Your task to perform on an android device: What's the latest news in space science? Image 0: 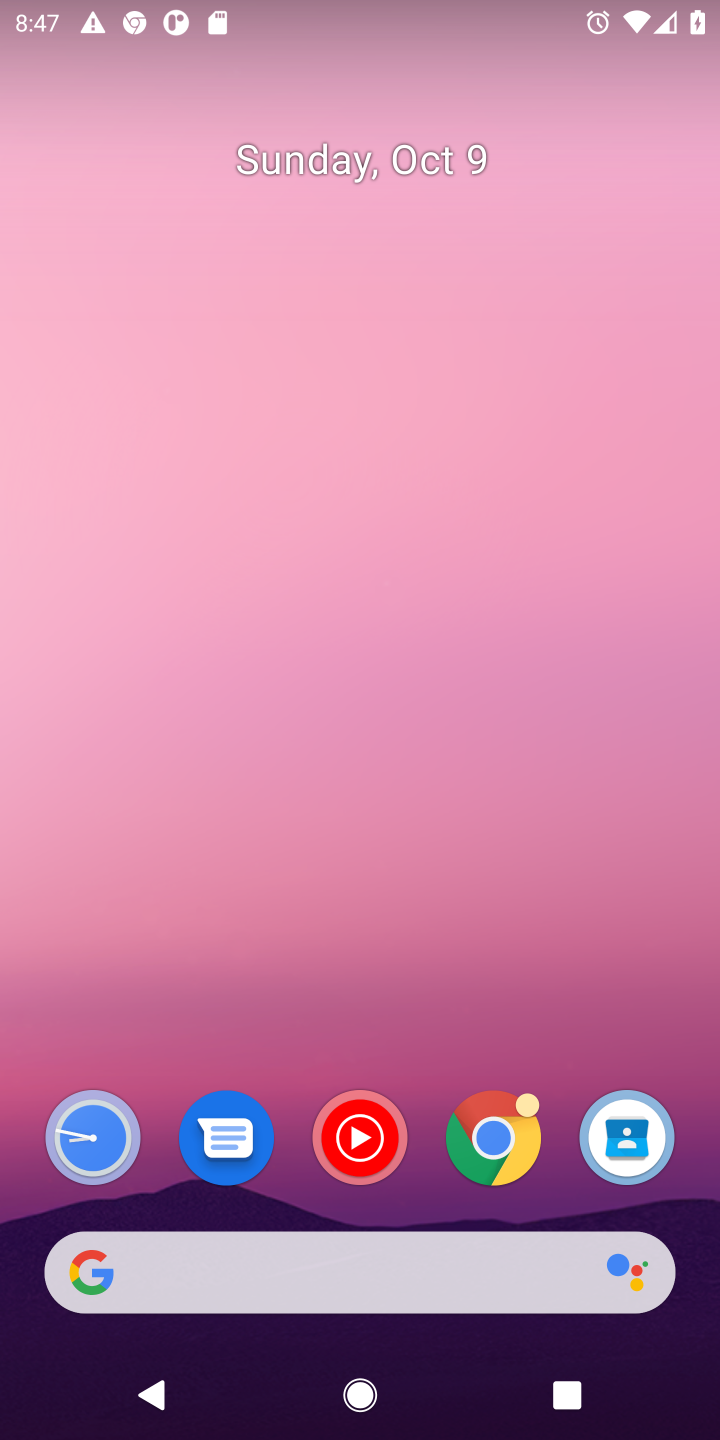
Step 0: drag from (348, 827) to (421, 558)
Your task to perform on an android device: What's the latest news in space science? Image 1: 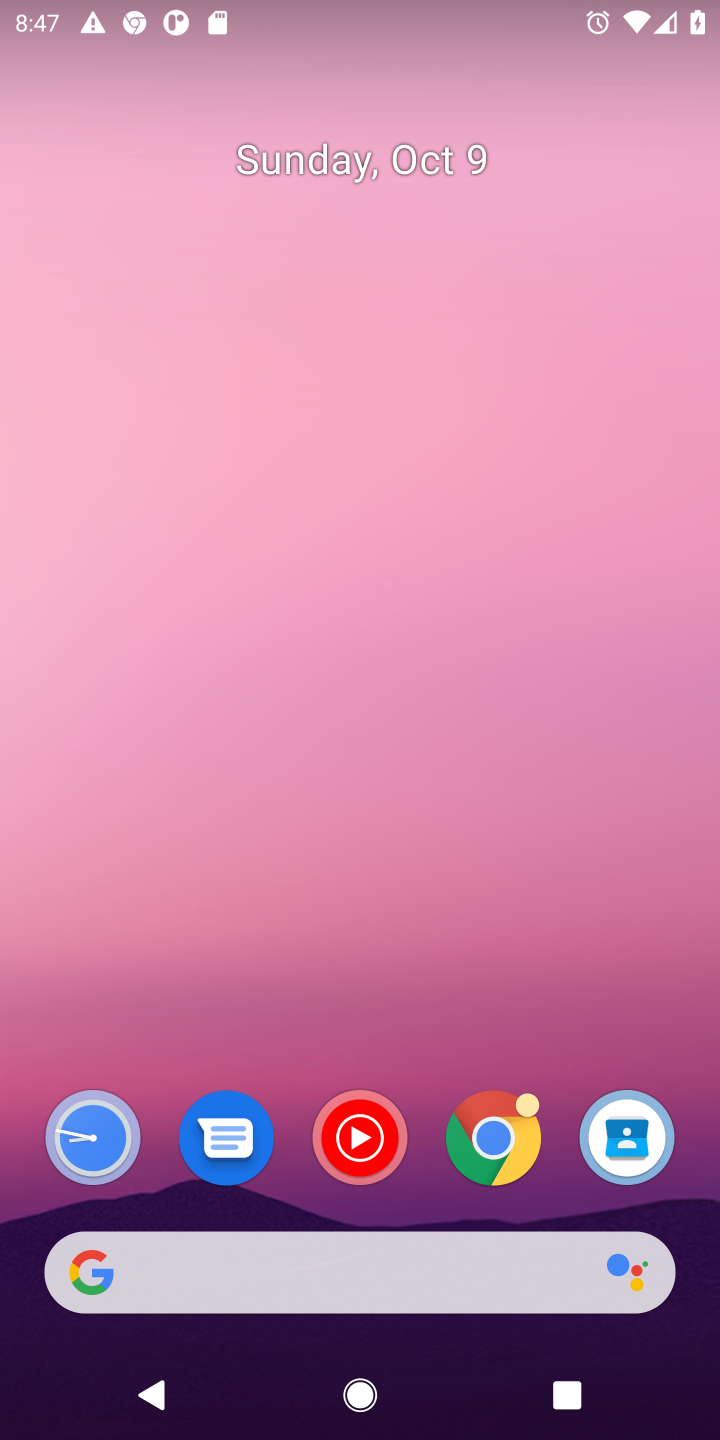
Step 1: drag from (228, 1208) to (331, 242)
Your task to perform on an android device: What's the latest news in space science? Image 2: 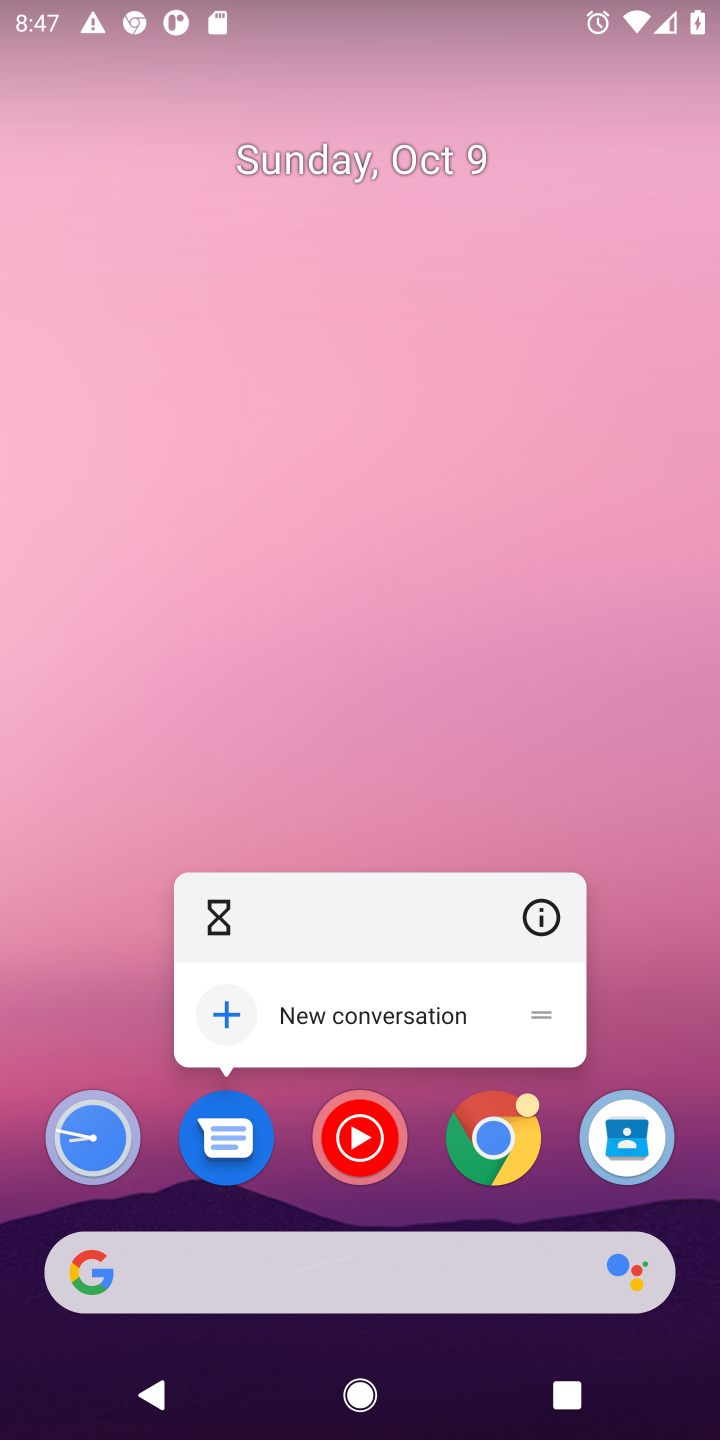
Step 2: click (444, 755)
Your task to perform on an android device: What's the latest news in space science? Image 3: 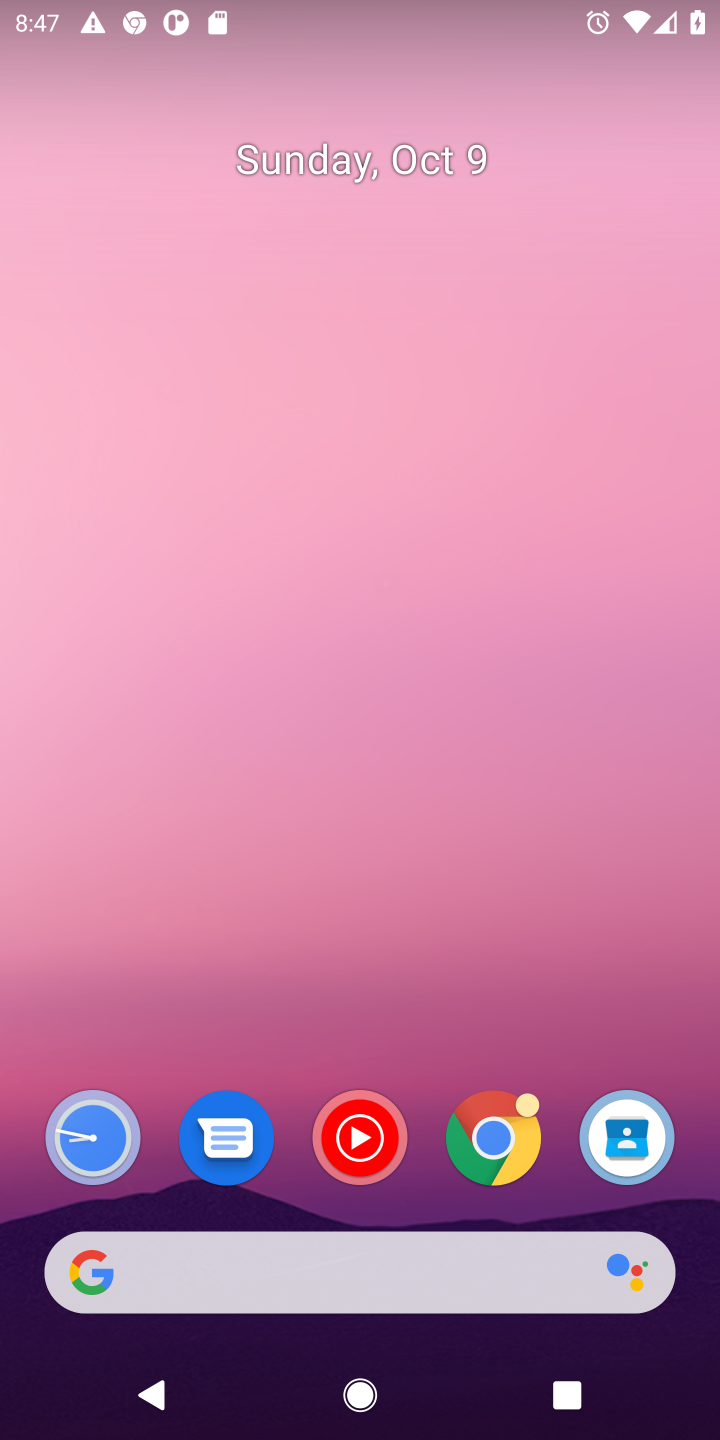
Step 3: drag from (361, 1001) to (453, 388)
Your task to perform on an android device: What's the latest news in space science? Image 4: 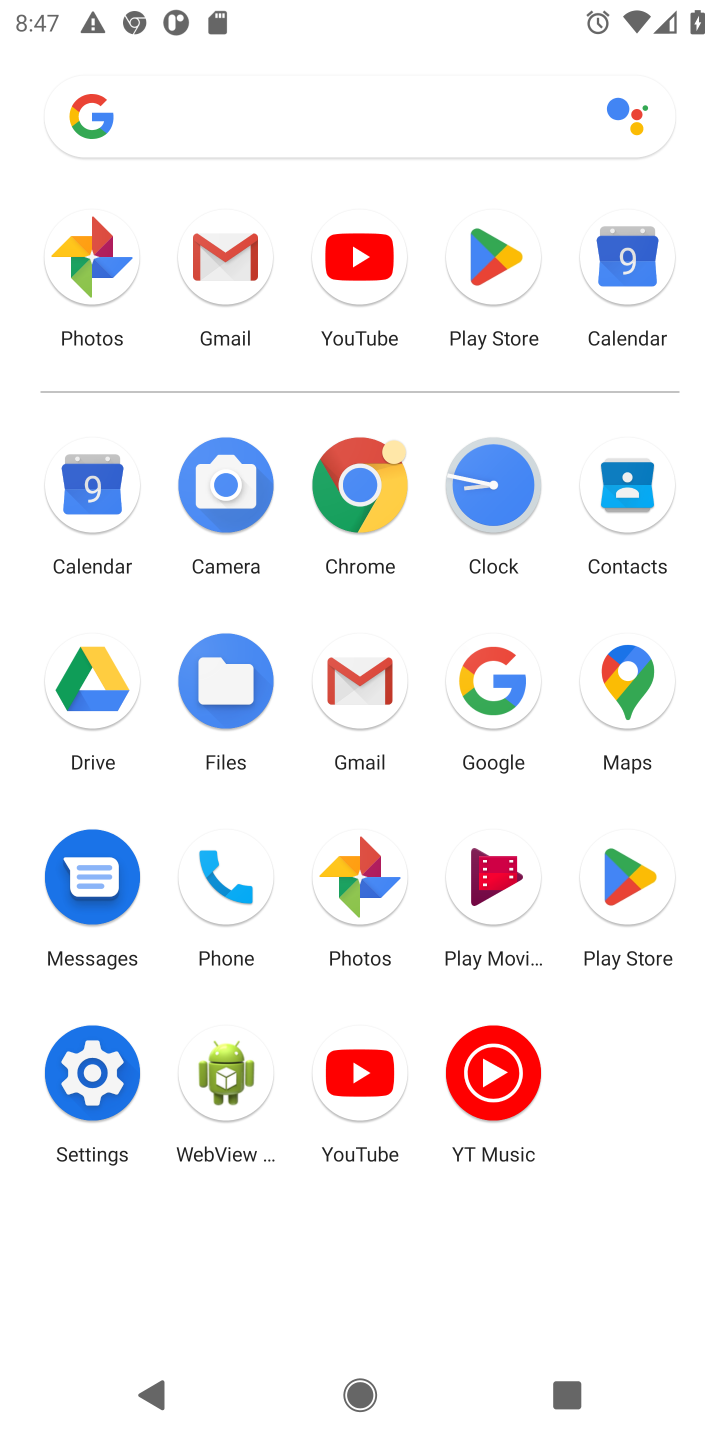
Step 4: click (504, 666)
Your task to perform on an android device: What's the latest news in space science? Image 5: 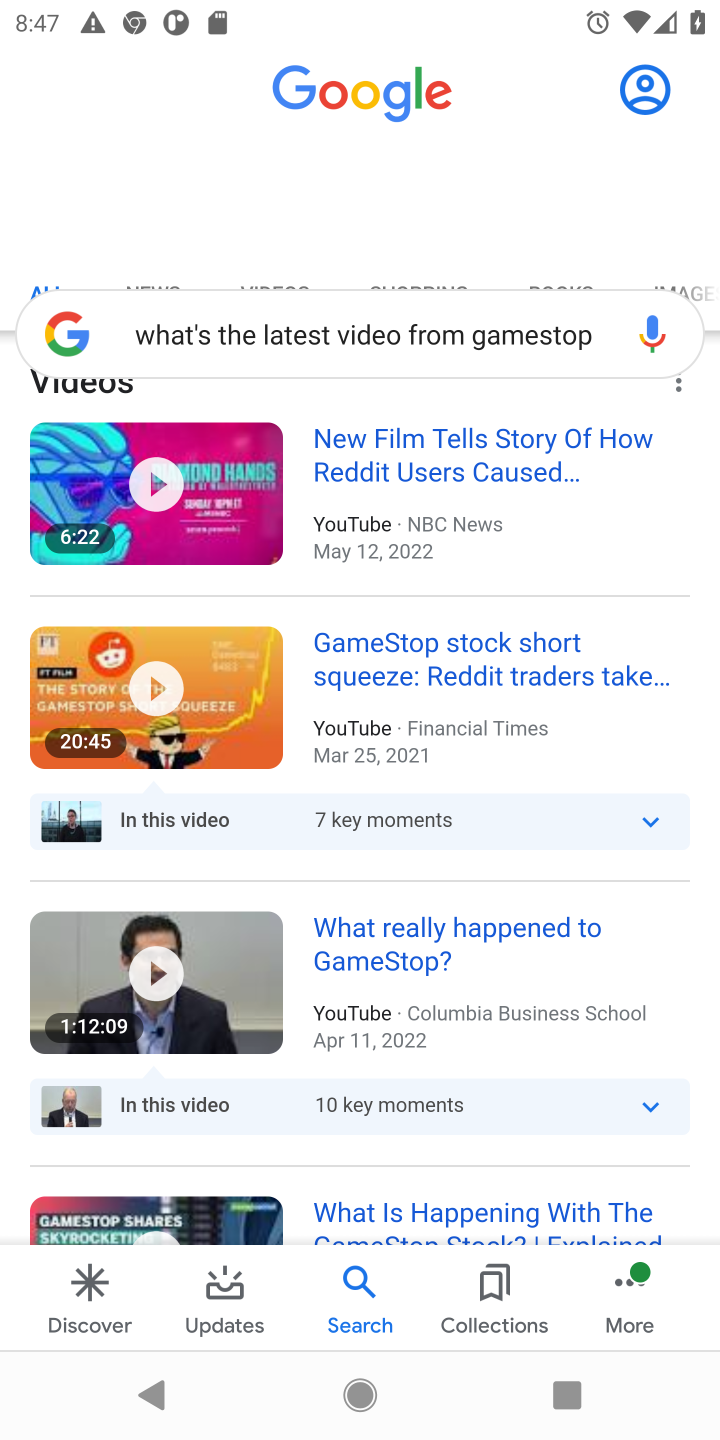
Step 5: click (355, 321)
Your task to perform on an android device: What's the latest news in space science? Image 6: 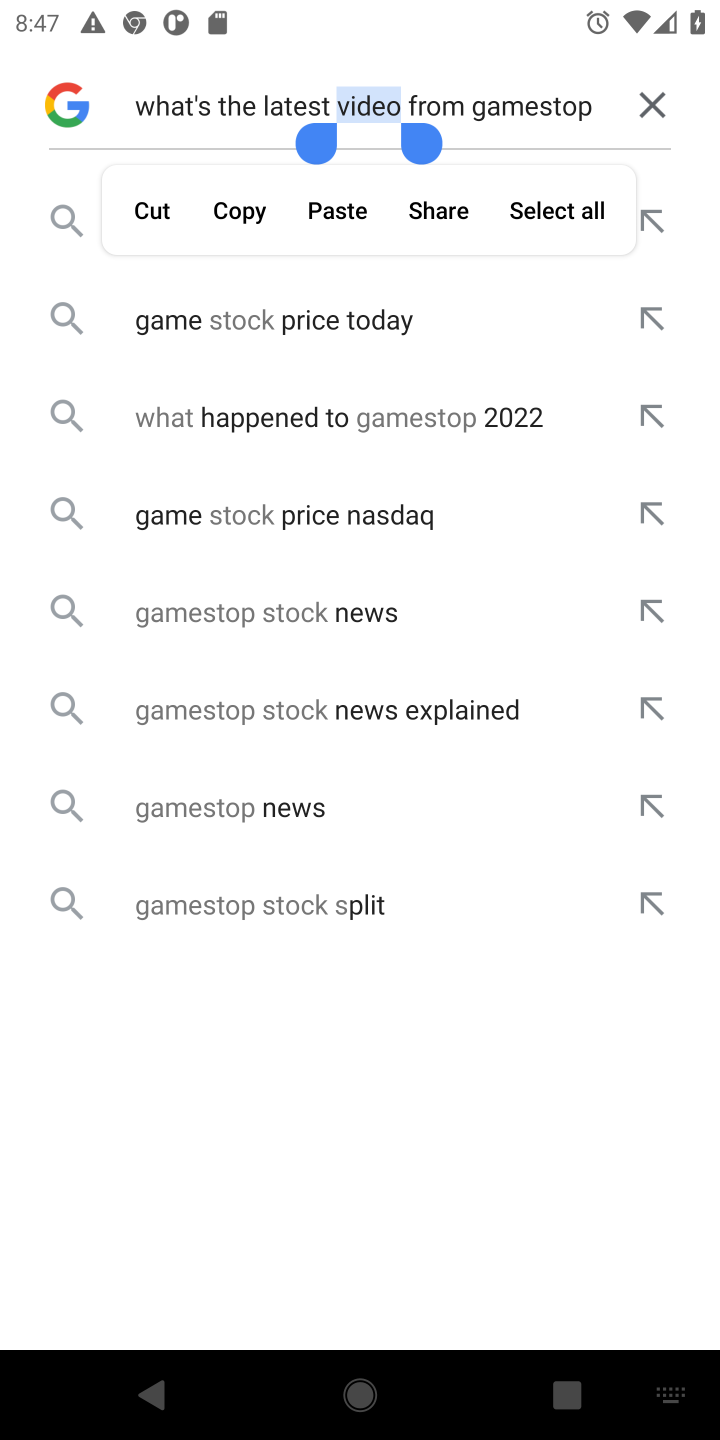
Step 6: click (646, 96)
Your task to perform on an android device: What's the latest news in space science? Image 7: 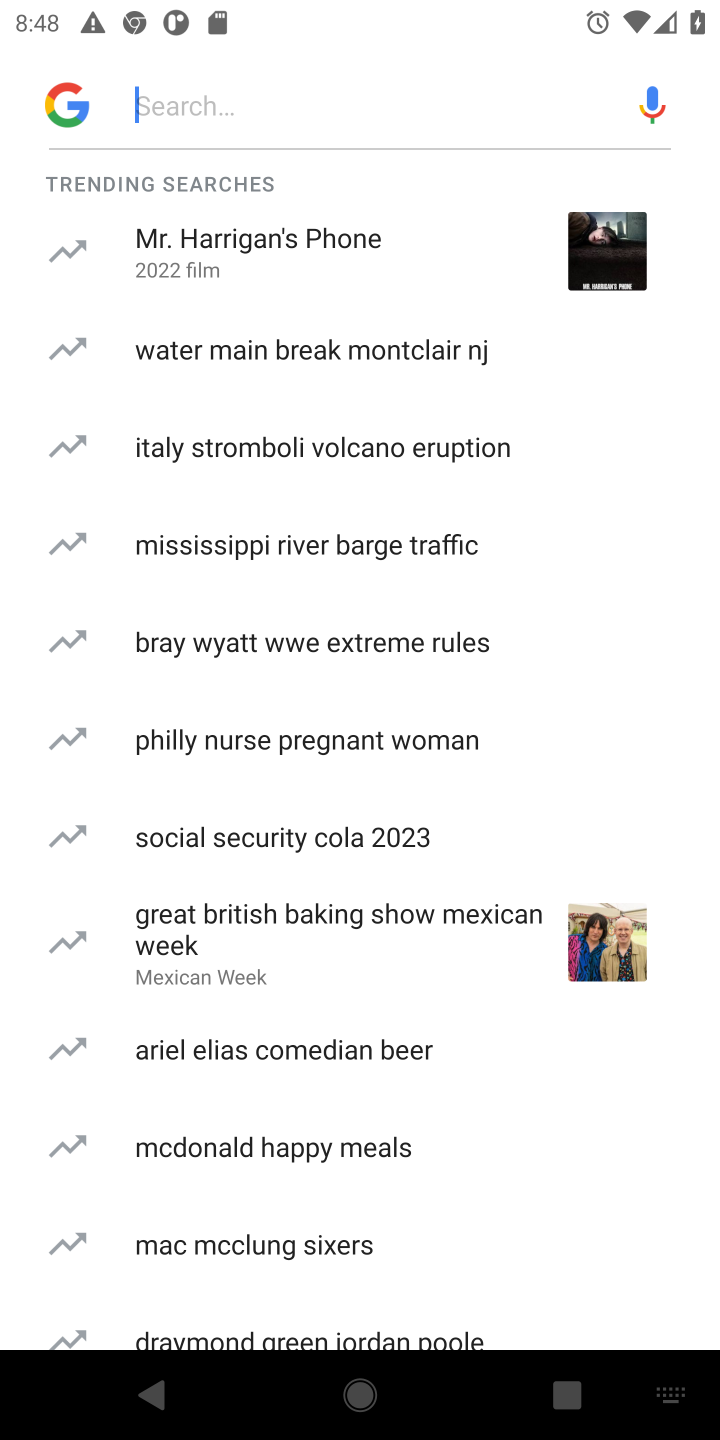
Step 7: click (248, 79)
Your task to perform on an android device: What's the latest news in space science? Image 8: 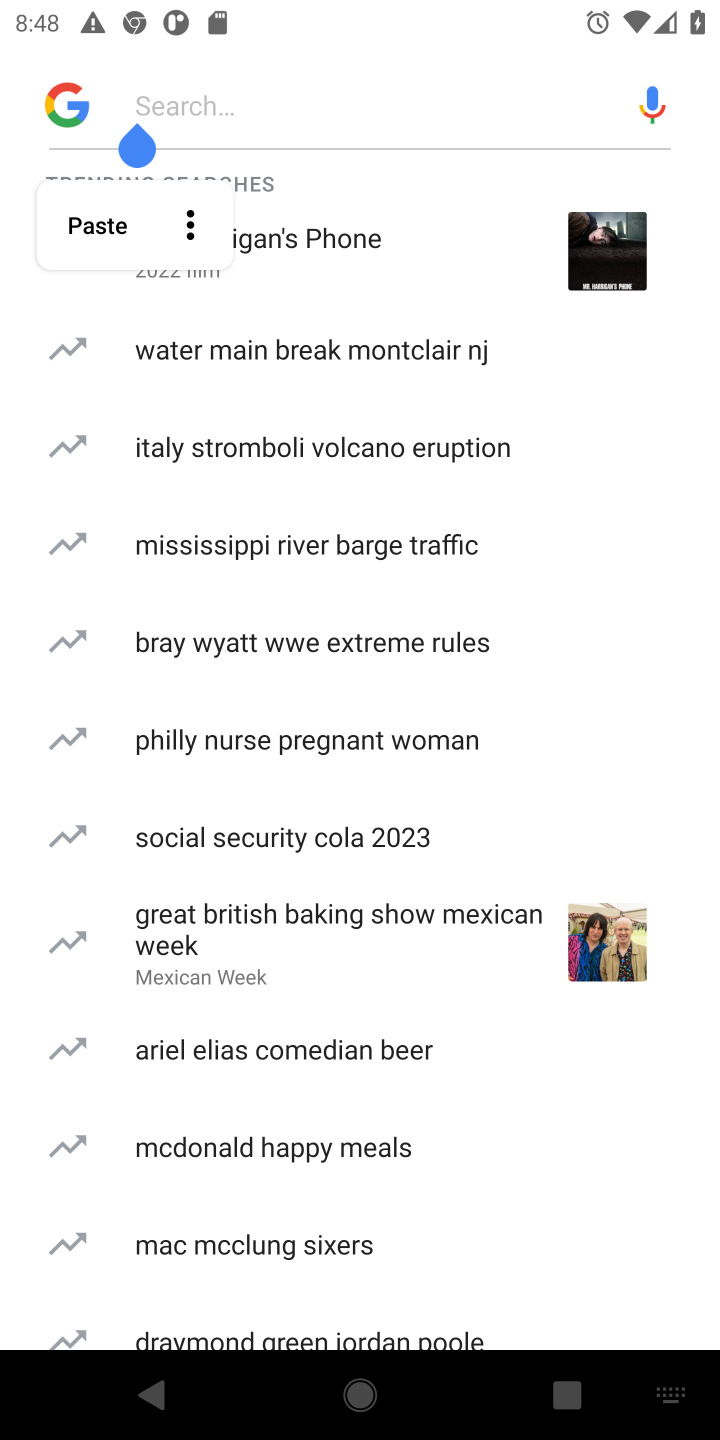
Step 8: type "What's the latest news in space science? "
Your task to perform on an android device: What's the latest news in space science? Image 9: 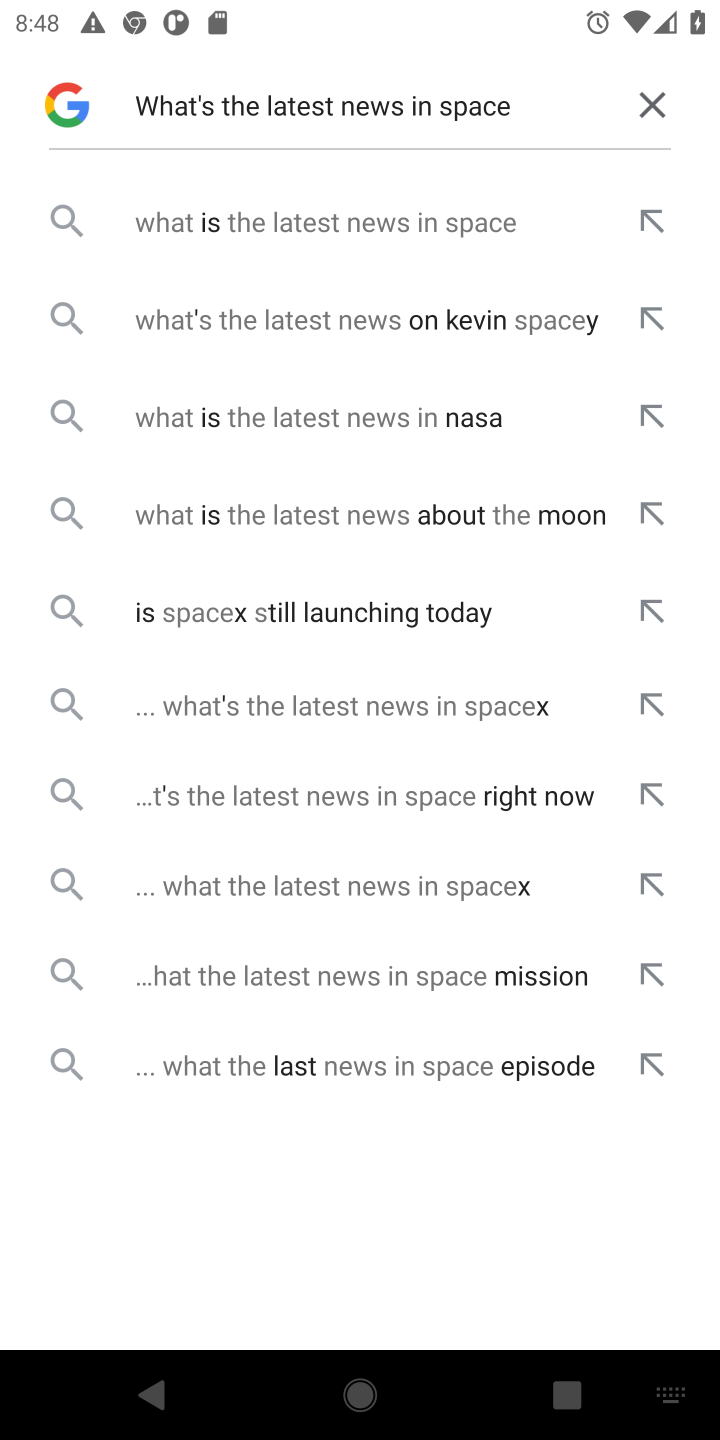
Step 9: click (336, 200)
Your task to perform on an android device: What's the latest news in space science? Image 10: 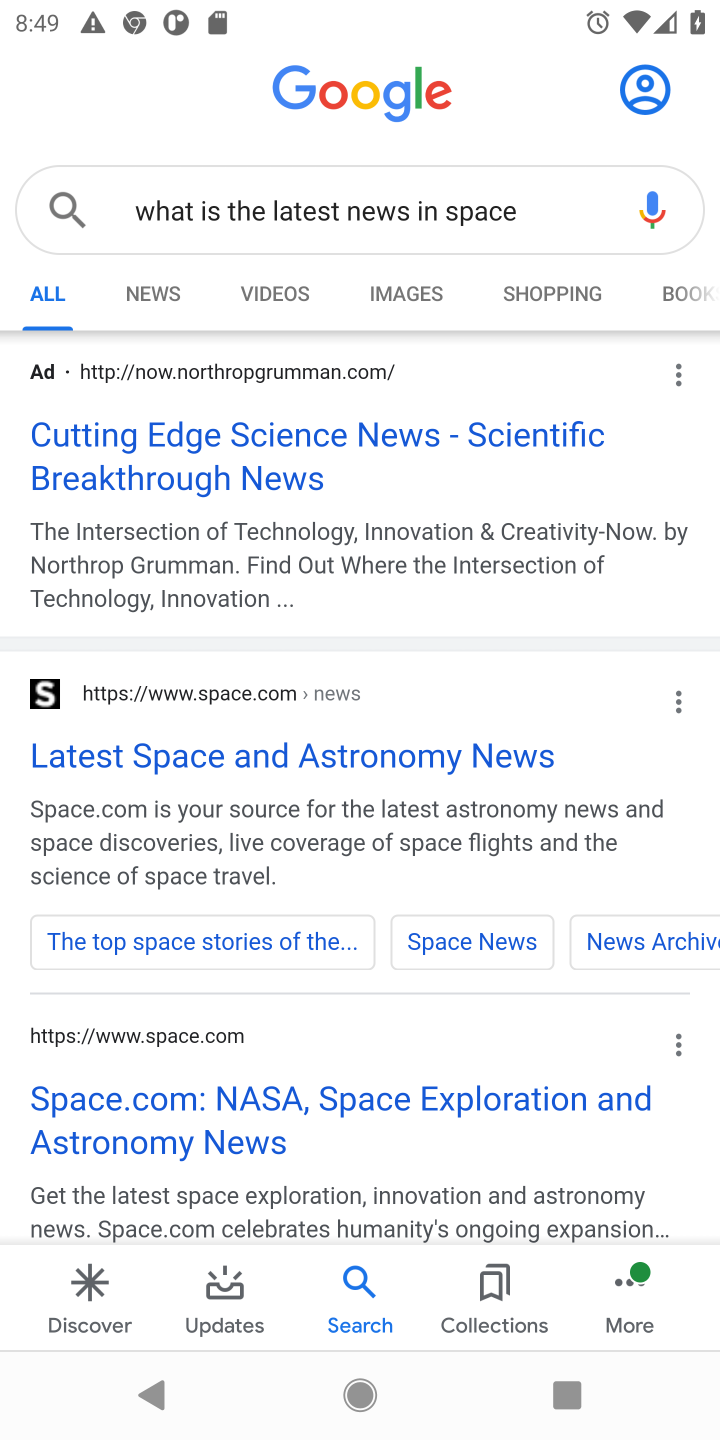
Step 10: click (104, 470)
Your task to perform on an android device: What's the latest news in space science? Image 11: 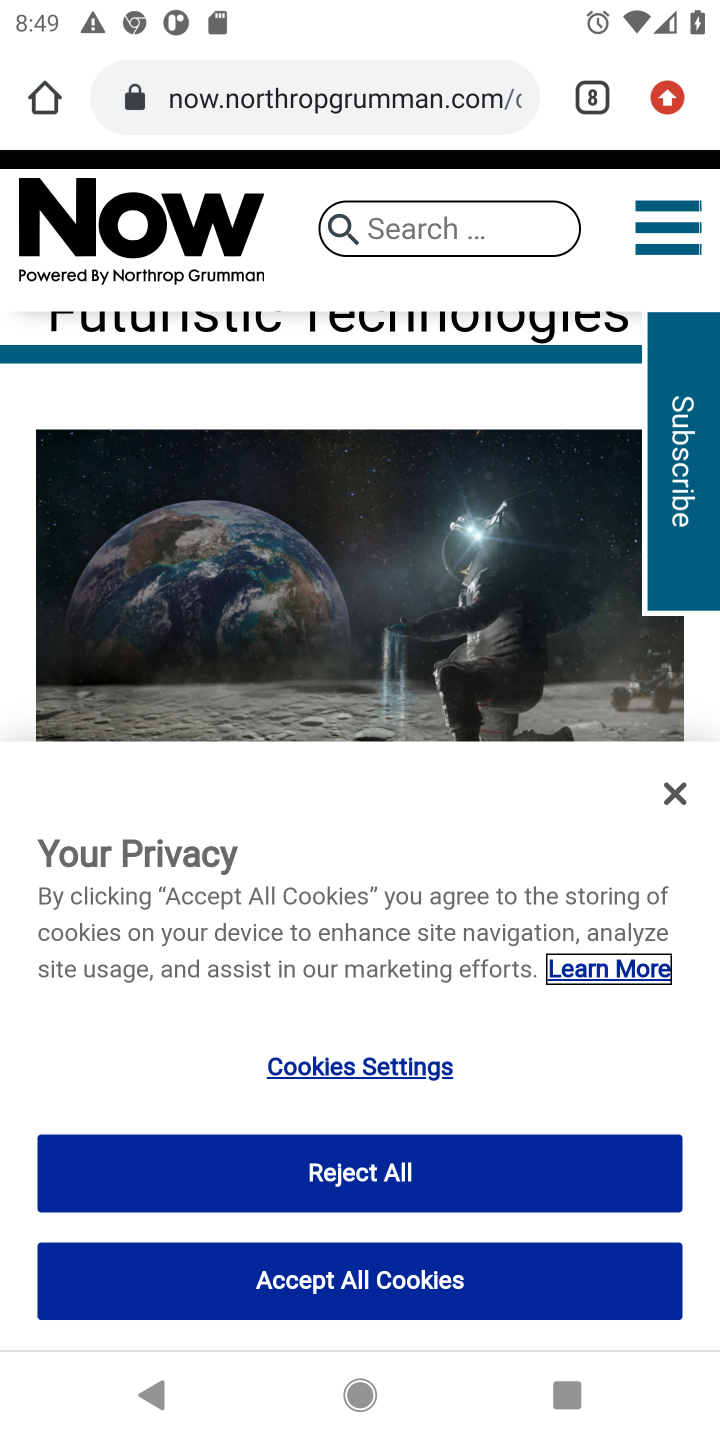
Step 11: task complete